Your task to perform on an android device: change notifications settings Image 0: 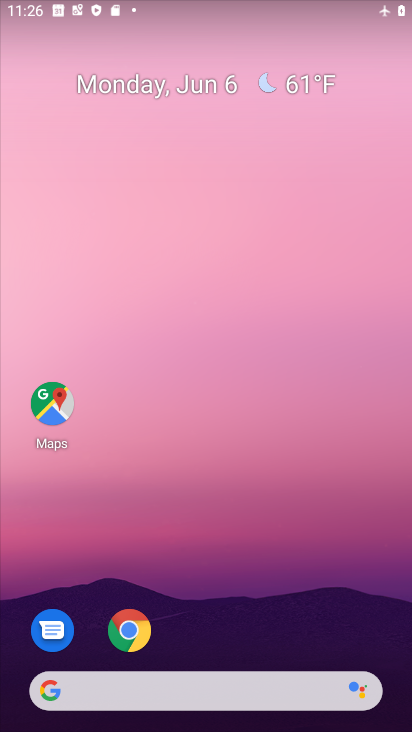
Step 0: drag from (354, 612) to (371, 166)
Your task to perform on an android device: change notifications settings Image 1: 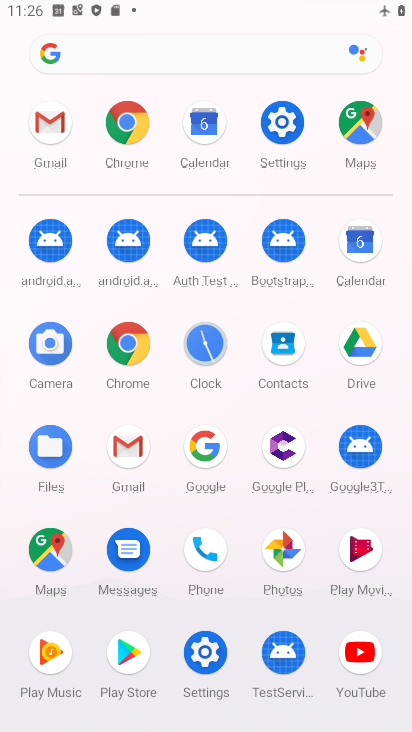
Step 1: click (297, 119)
Your task to perform on an android device: change notifications settings Image 2: 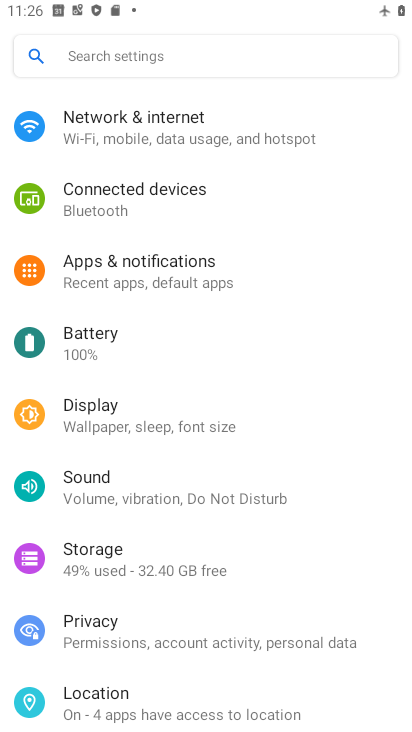
Step 2: click (213, 263)
Your task to perform on an android device: change notifications settings Image 3: 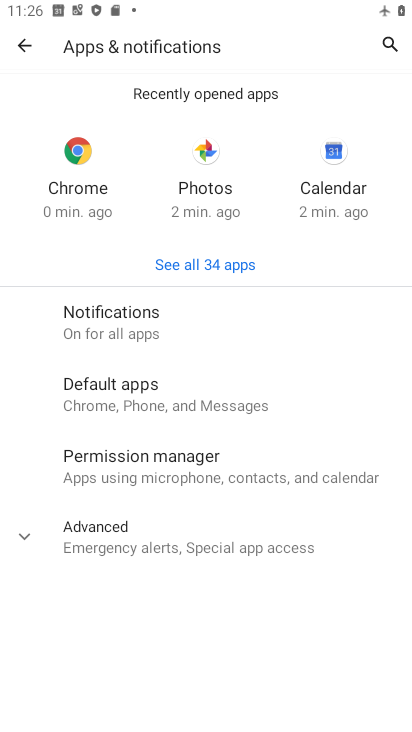
Step 3: click (134, 325)
Your task to perform on an android device: change notifications settings Image 4: 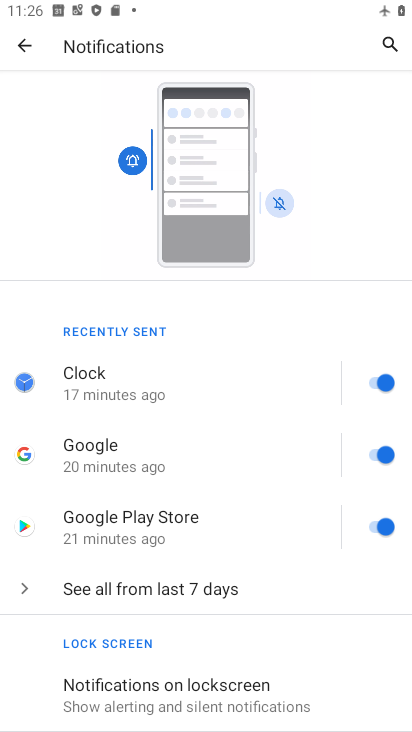
Step 4: drag from (288, 632) to (285, 342)
Your task to perform on an android device: change notifications settings Image 5: 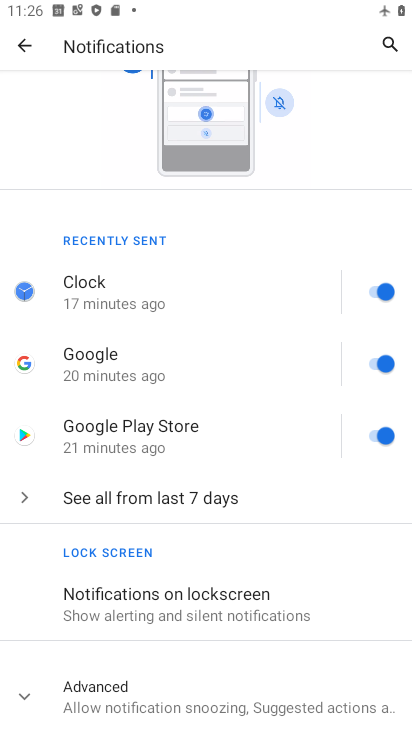
Step 5: click (390, 362)
Your task to perform on an android device: change notifications settings Image 6: 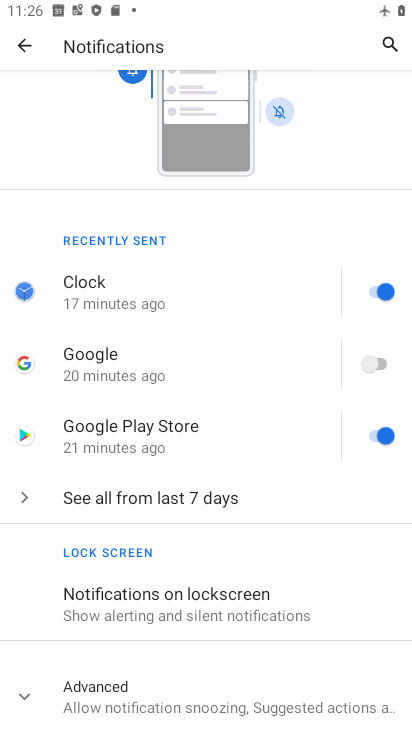
Step 6: task complete